Your task to perform on an android device: Search for sushi restaurants on Maps Image 0: 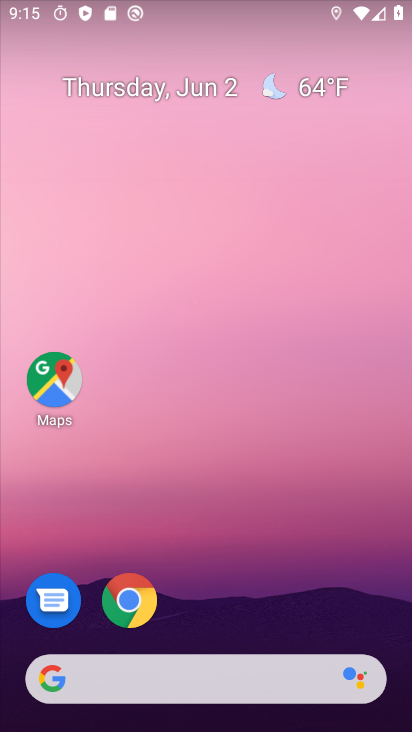
Step 0: click (53, 387)
Your task to perform on an android device: Search for sushi restaurants on Maps Image 1: 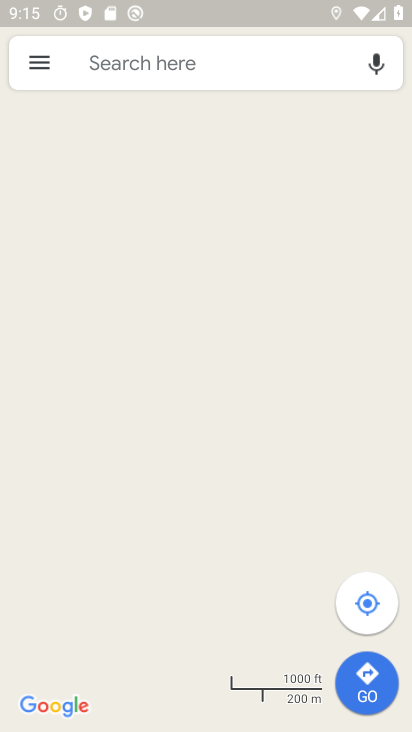
Step 1: click (158, 54)
Your task to perform on an android device: Search for sushi restaurants on Maps Image 2: 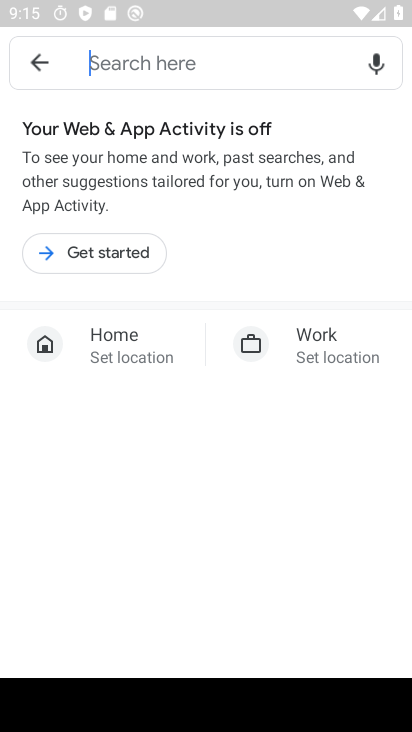
Step 2: click (100, 255)
Your task to perform on an android device: Search for sushi restaurants on Maps Image 3: 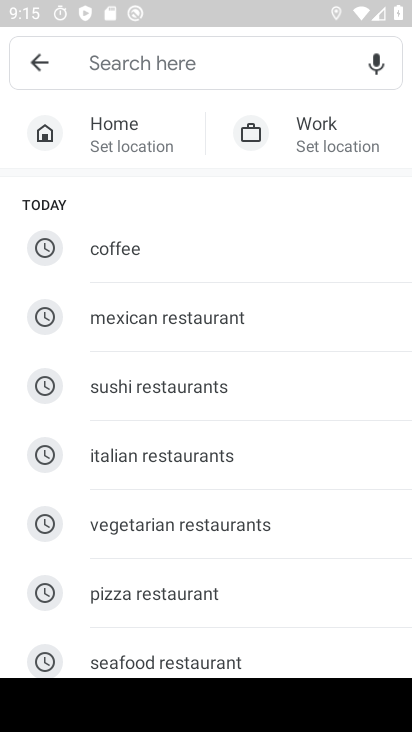
Step 3: click (165, 388)
Your task to perform on an android device: Search for sushi restaurants on Maps Image 4: 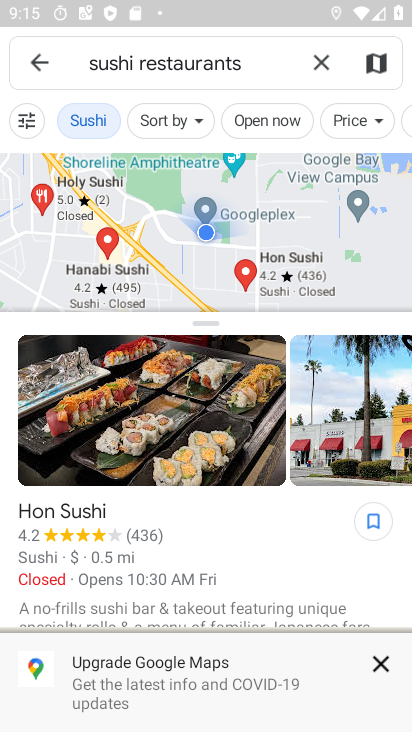
Step 4: task complete